Your task to perform on an android device: View the shopping cart on amazon.com. Add logitech g pro to the cart on amazon.com Image 0: 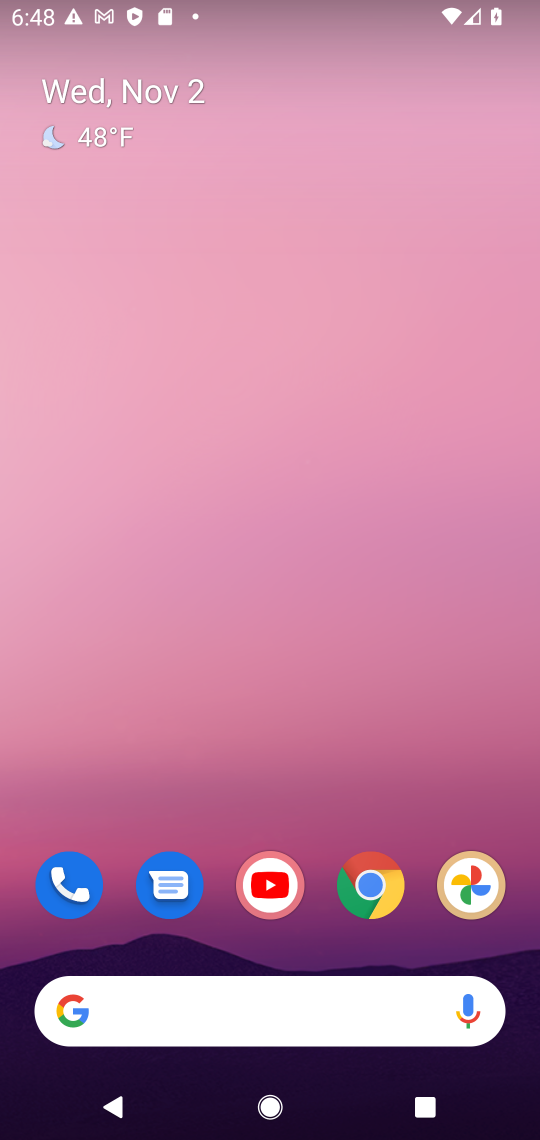
Step 0: click (368, 882)
Your task to perform on an android device: View the shopping cart on amazon.com. Add logitech g pro to the cart on amazon.com Image 1: 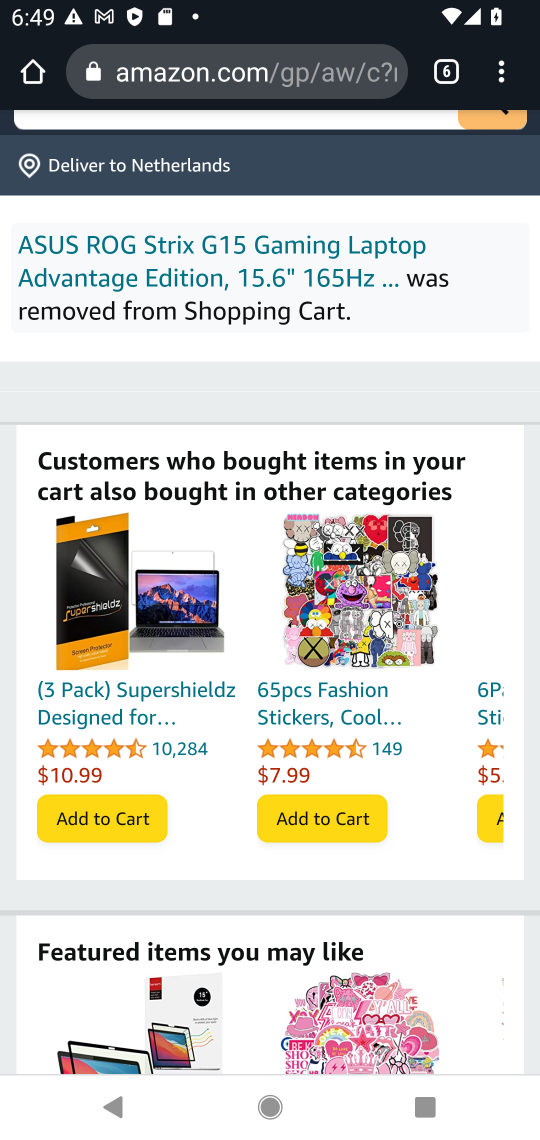
Step 1: drag from (404, 175) to (327, 748)
Your task to perform on an android device: View the shopping cart on amazon.com. Add logitech g pro to the cart on amazon.com Image 2: 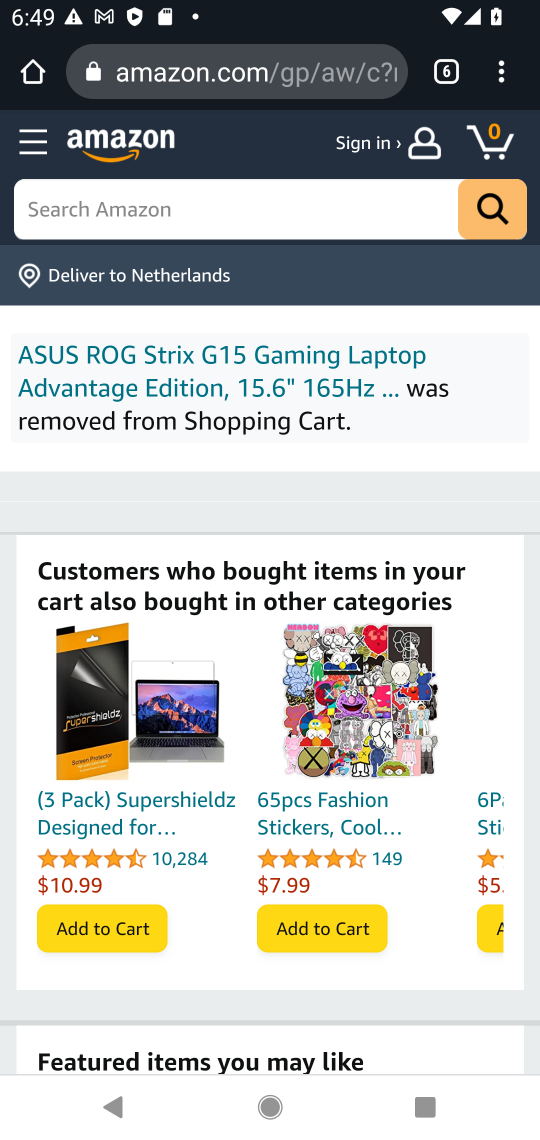
Step 2: click (482, 149)
Your task to perform on an android device: View the shopping cart on amazon.com. Add logitech g pro to the cart on amazon.com Image 3: 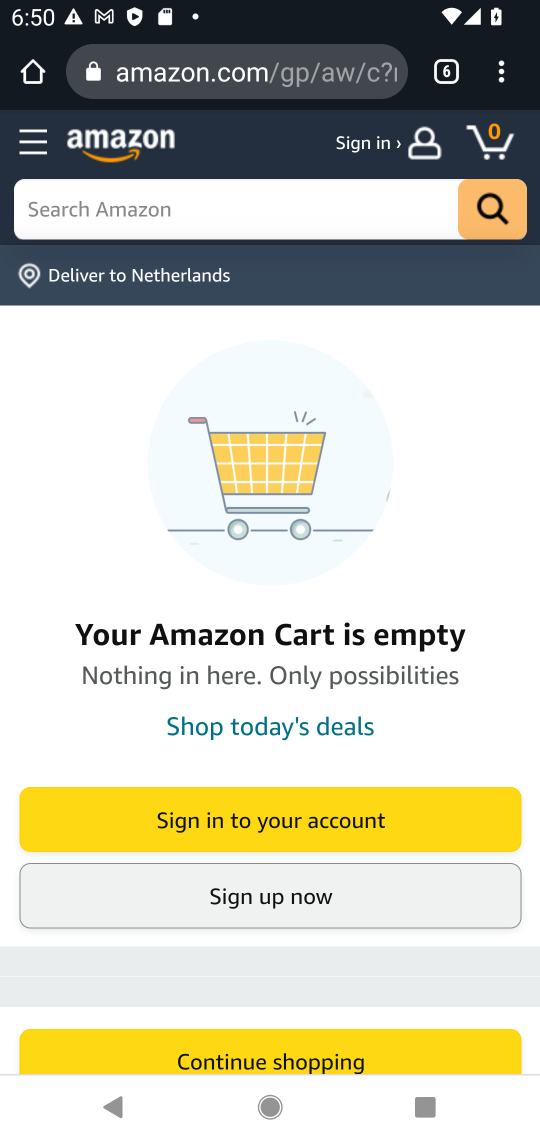
Step 3: click (169, 201)
Your task to perform on an android device: View the shopping cart on amazon.com. Add logitech g pro to the cart on amazon.com Image 4: 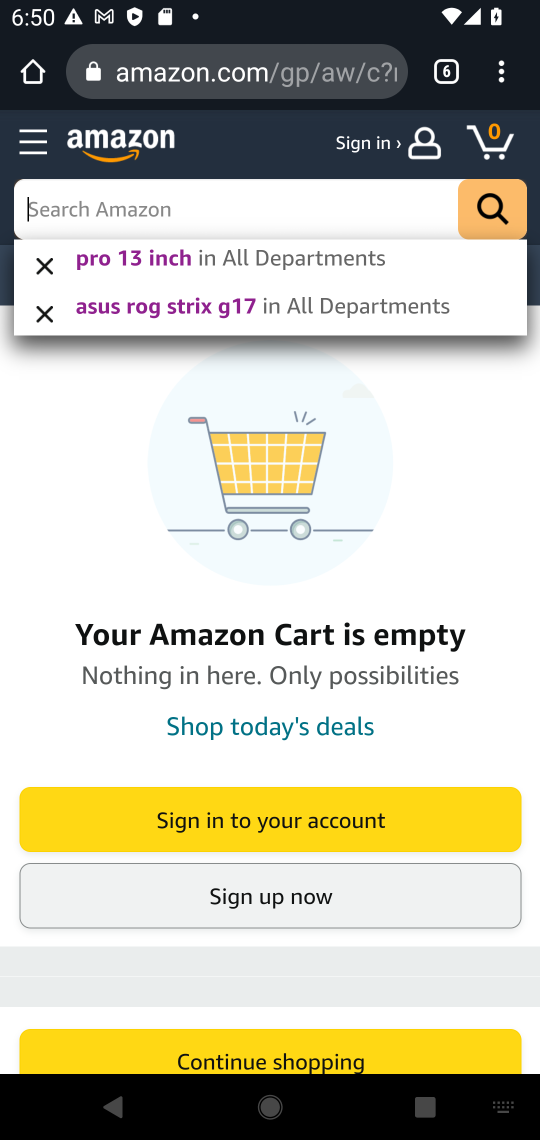
Step 4: type "logitech g pro"
Your task to perform on an android device: View the shopping cart on amazon.com. Add logitech g pro to the cart on amazon.com Image 5: 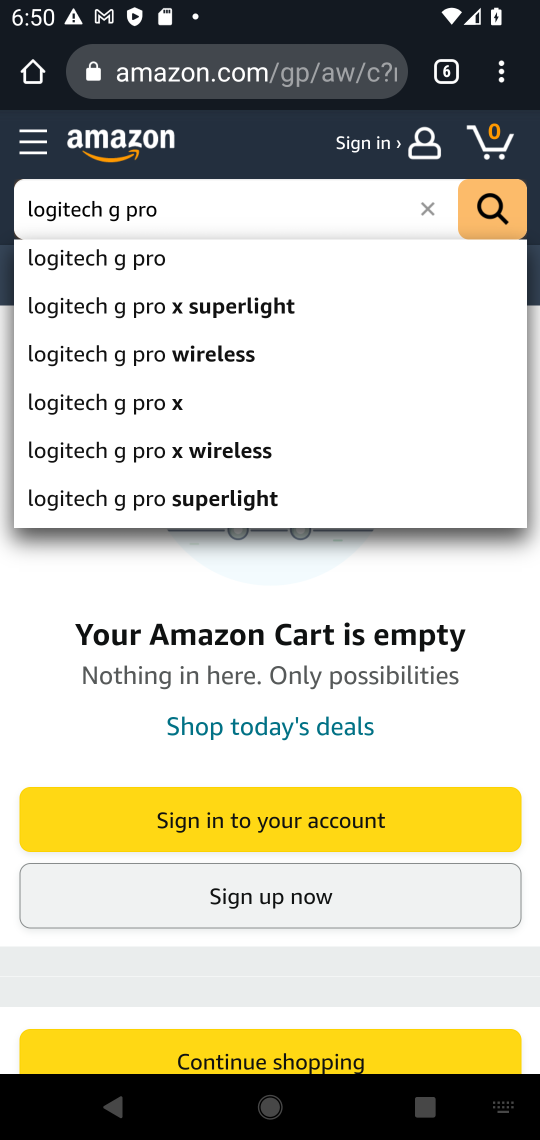
Step 5: click (152, 254)
Your task to perform on an android device: View the shopping cart on amazon.com. Add logitech g pro to the cart on amazon.com Image 6: 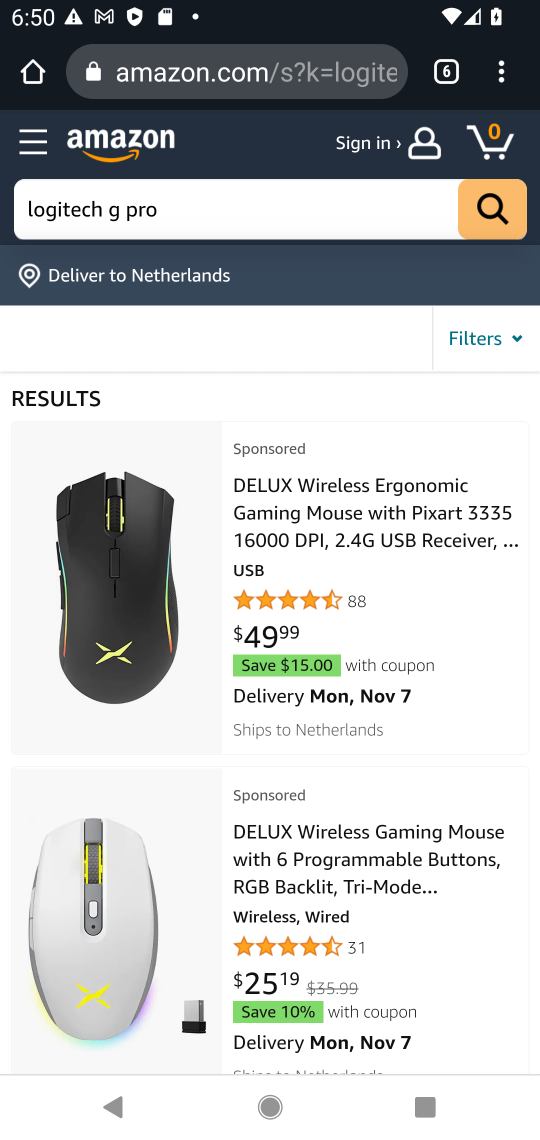
Step 6: drag from (294, 857) to (353, 534)
Your task to perform on an android device: View the shopping cart on amazon.com. Add logitech g pro to the cart on amazon.com Image 7: 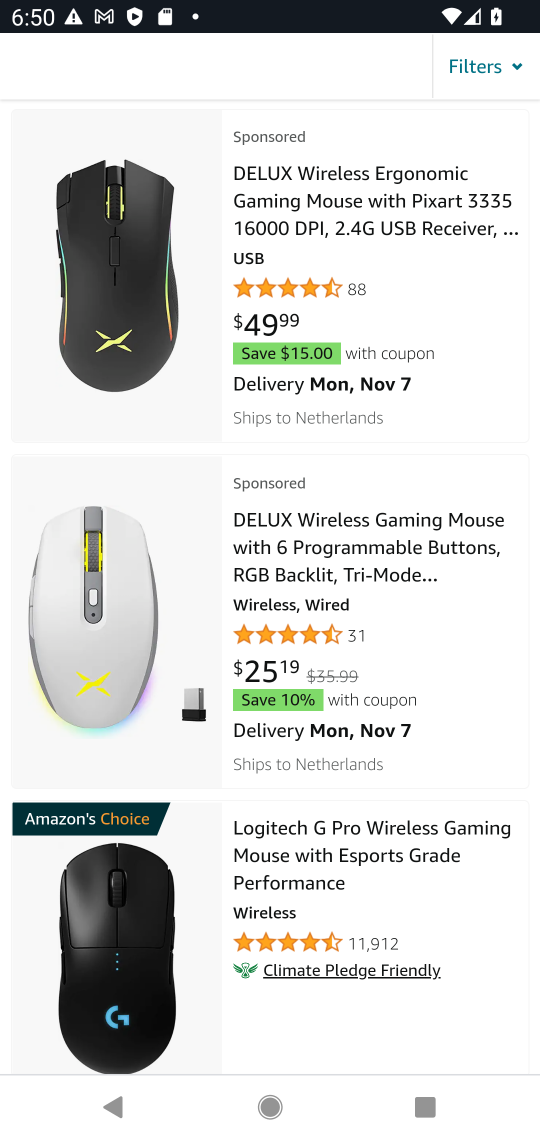
Step 7: click (329, 847)
Your task to perform on an android device: View the shopping cart on amazon.com. Add logitech g pro to the cart on amazon.com Image 8: 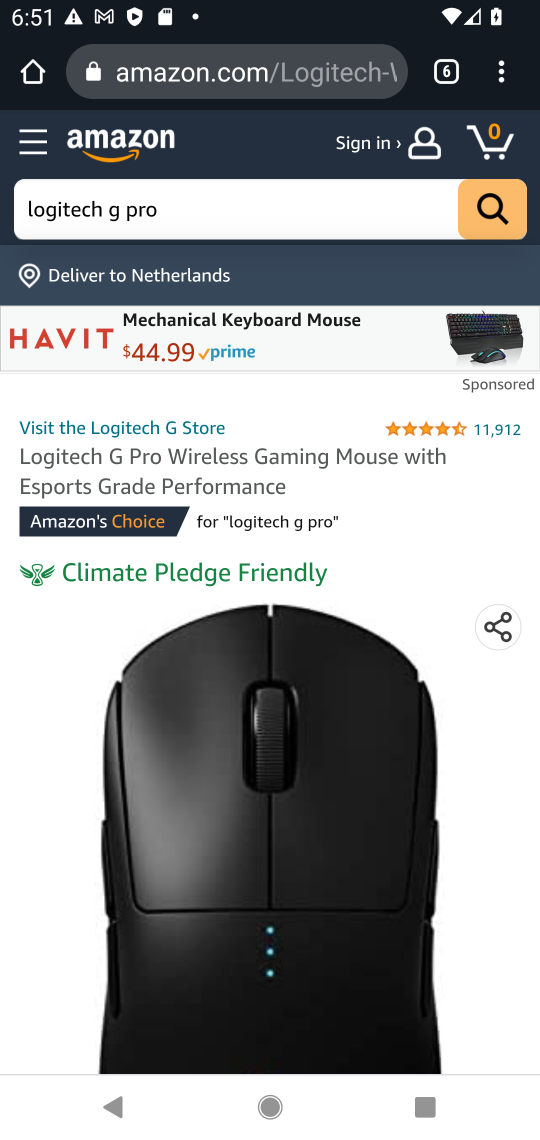
Step 8: task complete